Your task to perform on an android device: delete the emails in spam in the gmail app Image 0: 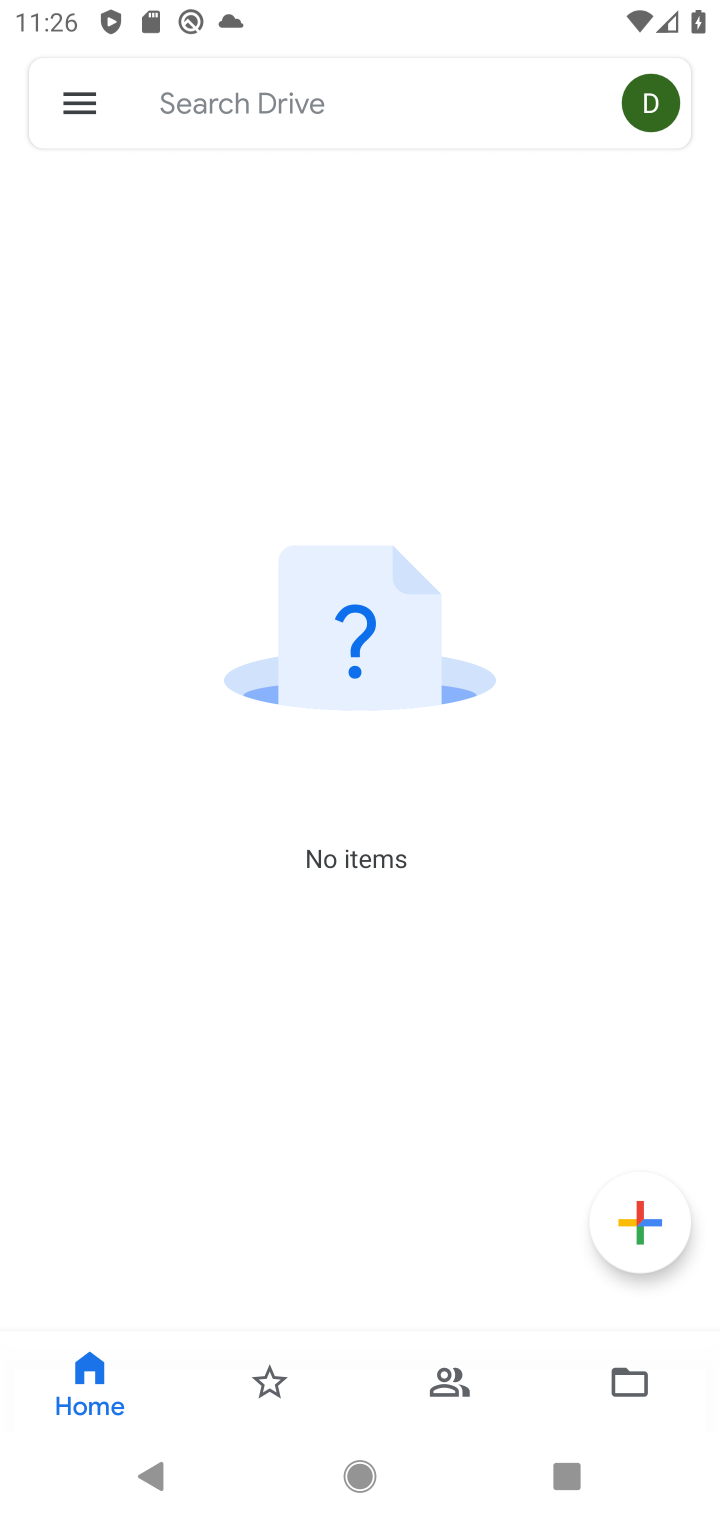
Step 0: drag from (381, 1402) to (387, 268)
Your task to perform on an android device: delete the emails in spam in the gmail app Image 1: 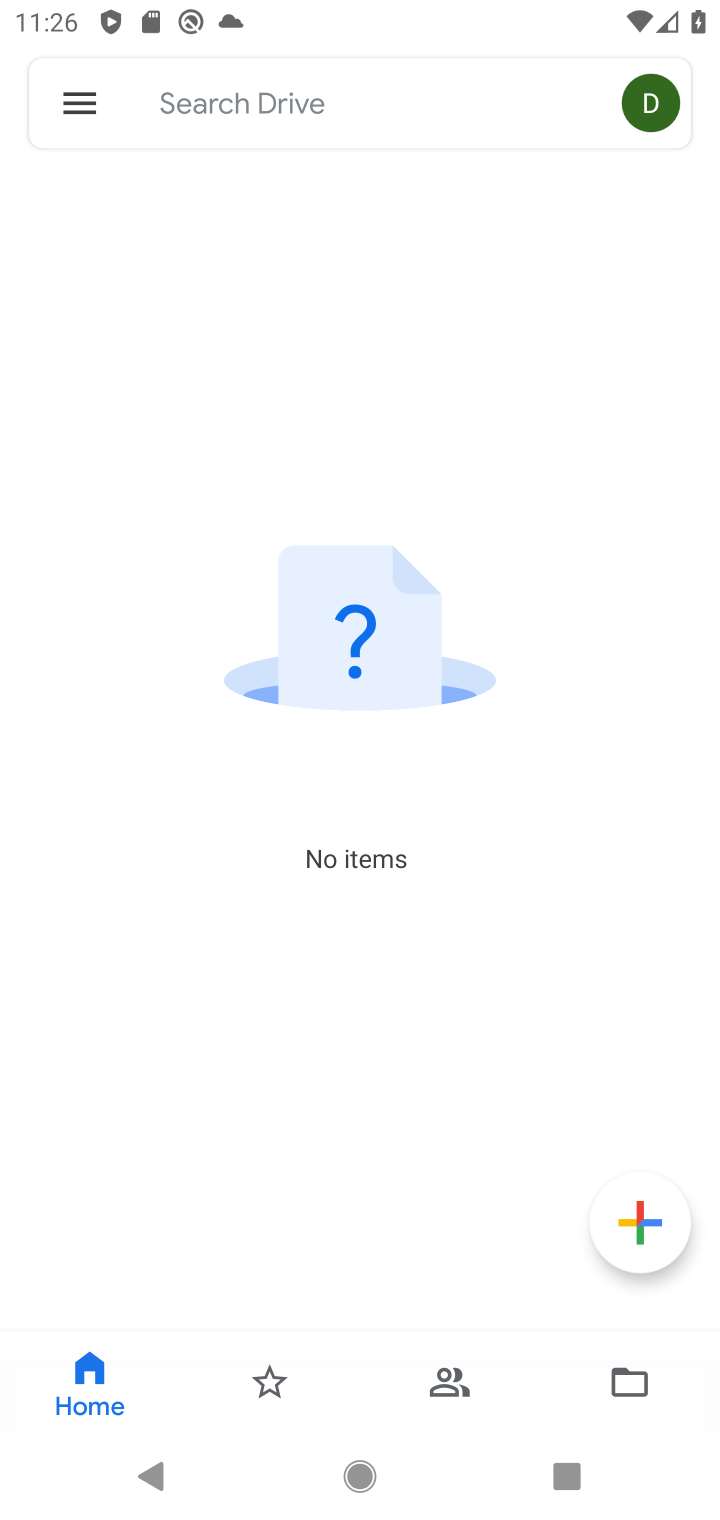
Step 1: click (82, 124)
Your task to perform on an android device: delete the emails in spam in the gmail app Image 2: 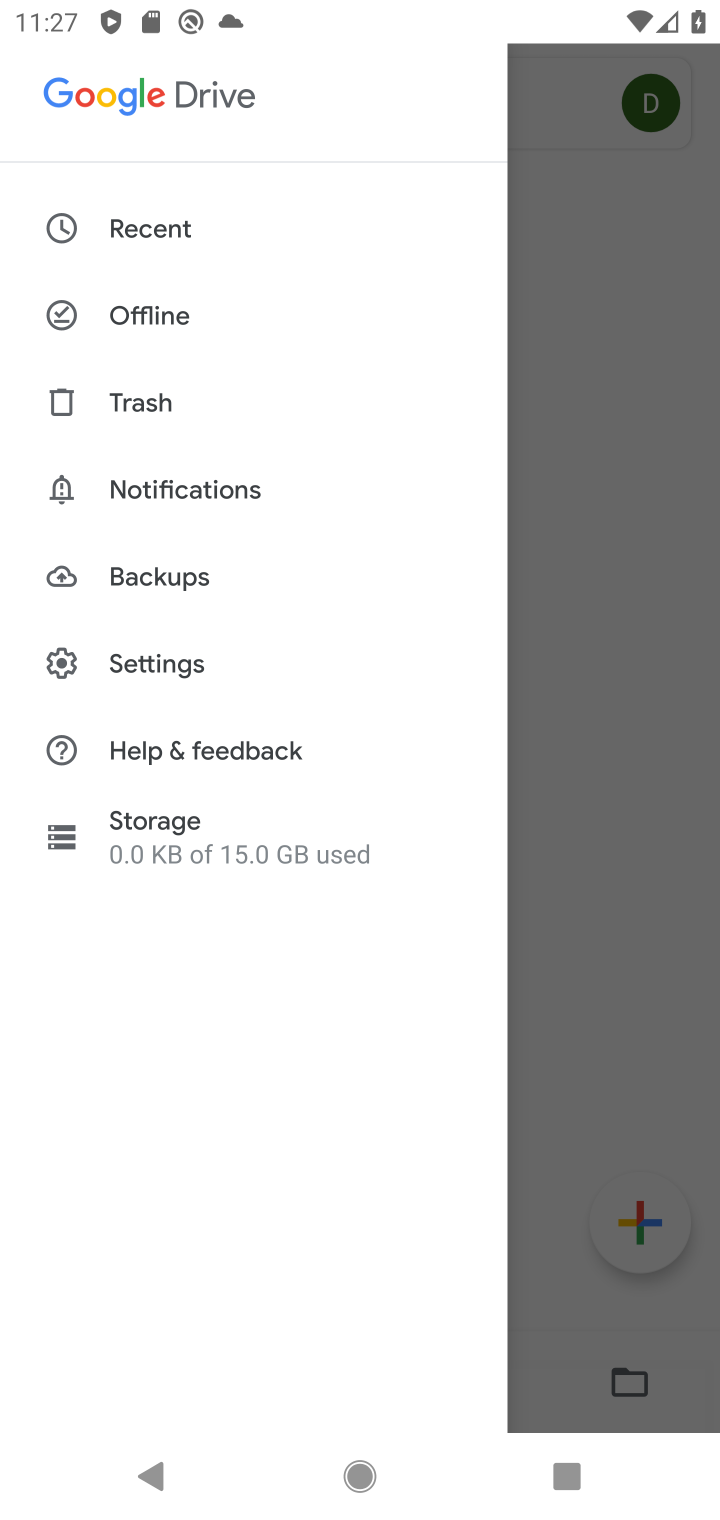
Step 2: task complete